Your task to perform on an android device: toggle airplane mode Image 0: 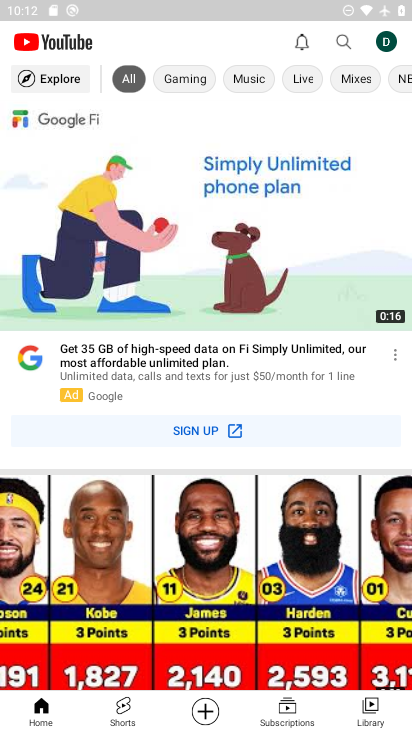
Step 0: press home button
Your task to perform on an android device: toggle airplane mode Image 1: 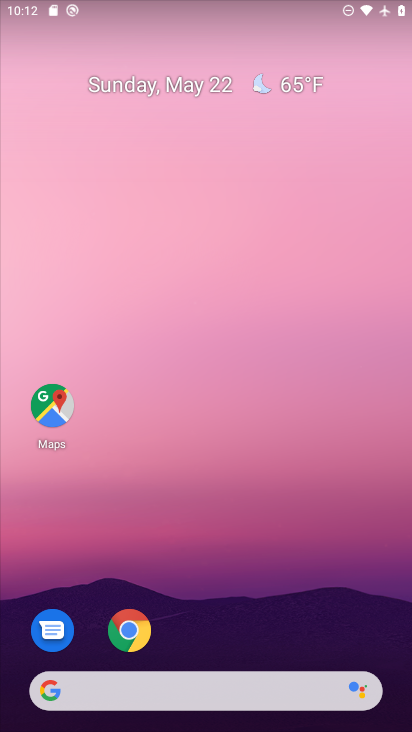
Step 1: drag from (203, 685) to (309, 120)
Your task to perform on an android device: toggle airplane mode Image 2: 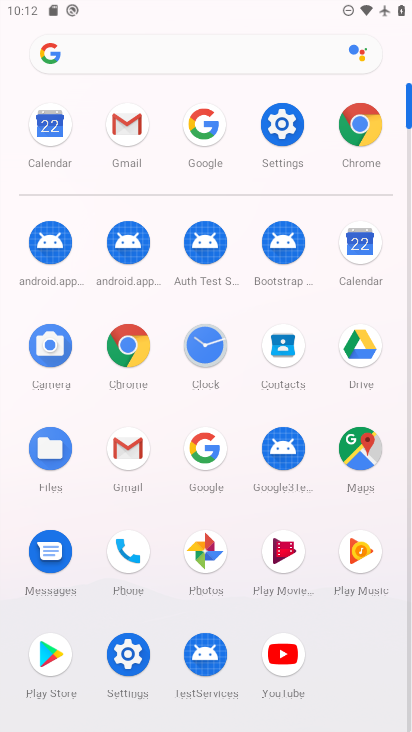
Step 2: click (277, 131)
Your task to perform on an android device: toggle airplane mode Image 3: 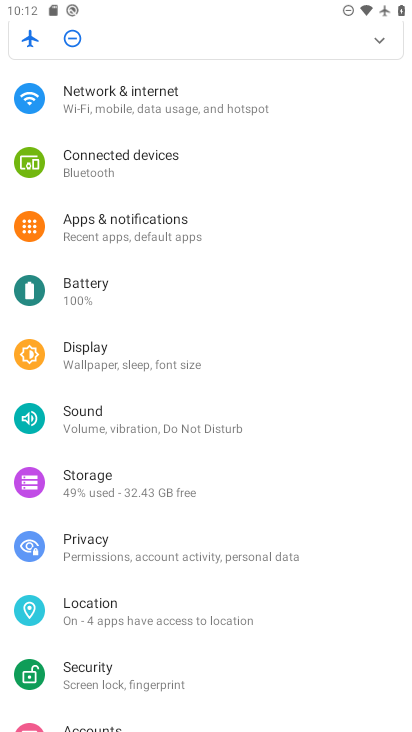
Step 3: drag from (311, 172) to (278, 551)
Your task to perform on an android device: toggle airplane mode Image 4: 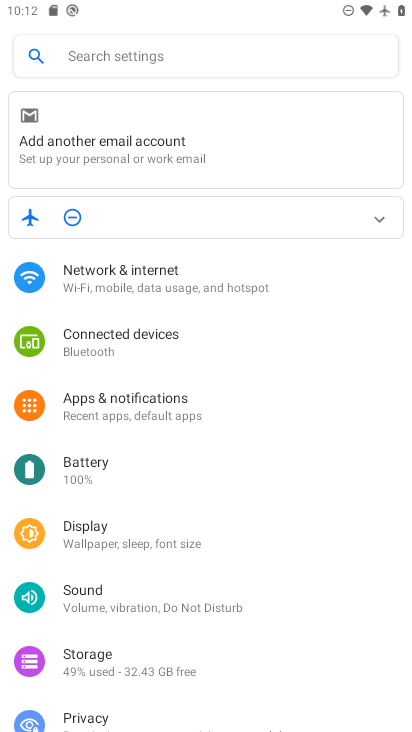
Step 4: click (175, 275)
Your task to perform on an android device: toggle airplane mode Image 5: 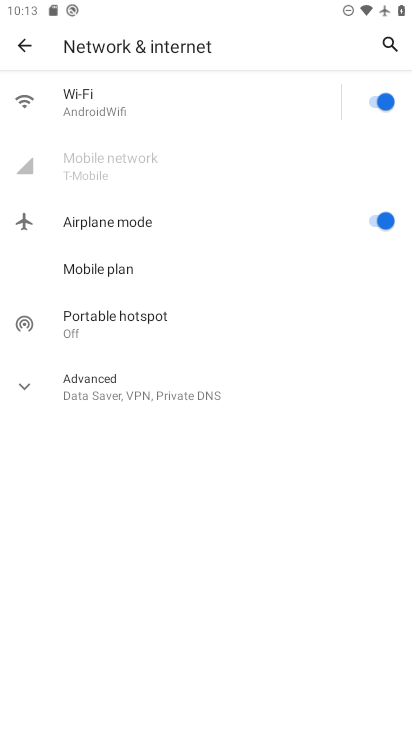
Step 5: click (375, 220)
Your task to perform on an android device: toggle airplane mode Image 6: 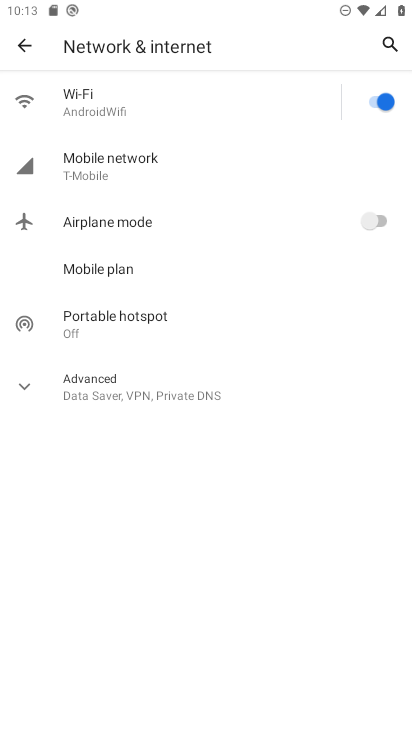
Step 6: task complete